Your task to perform on an android device: Open Chrome and go to settings Image 0: 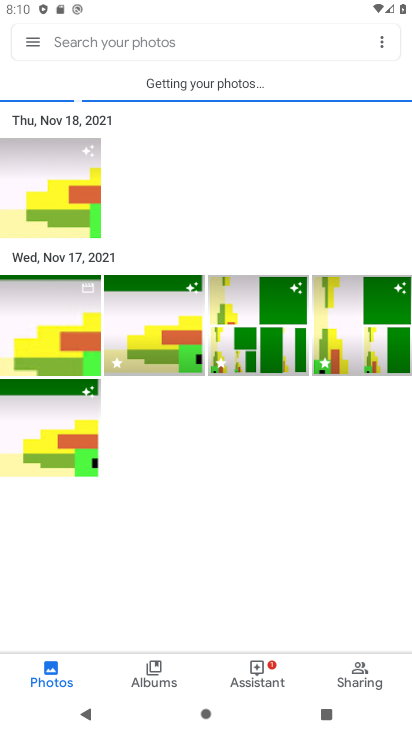
Step 0: press home button
Your task to perform on an android device: Open Chrome and go to settings Image 1: 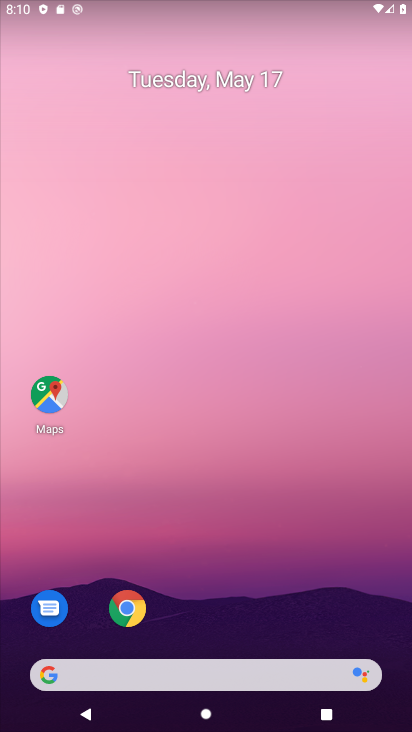
Step 1: drag from (353, 619) to (362, 204)
Your task to perform on an android device: Open Chrome and go to settings Image 2: 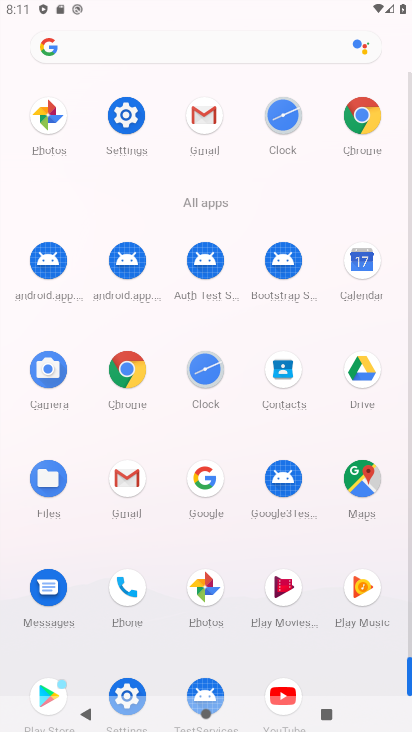
Step 2: click (364, 135)
Your task to perform on an android device: Open Chrome and go to settings Image 3: 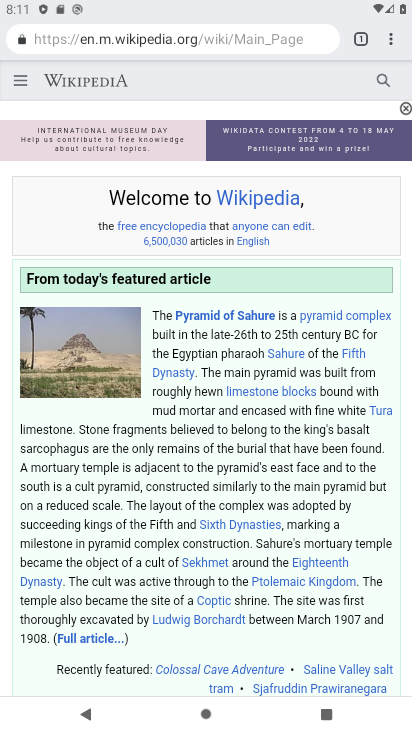
Step 3: click (384, 43)
Your task to perform on an android device: Open Chrome and go to settings Image 4: 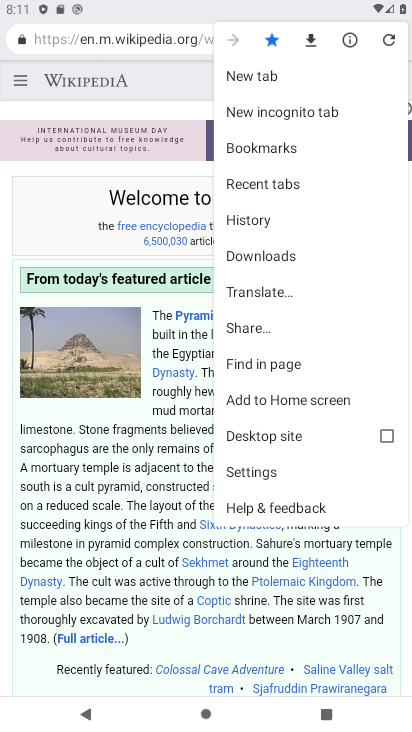
Step 4: click (277, 476)
Your task to perform on an android device: Open Chrome and go to settings Image 5: 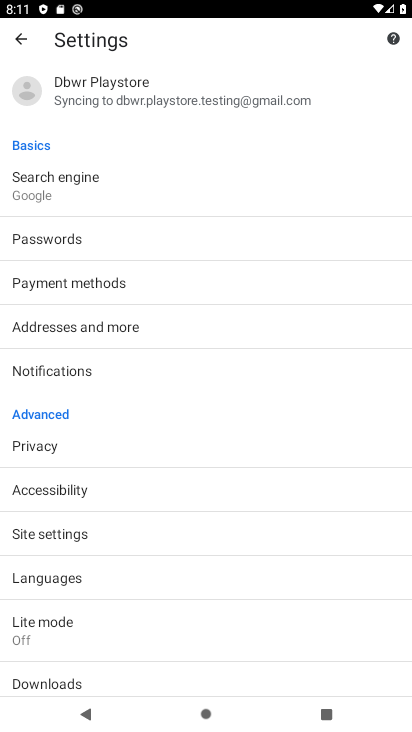
Step 5: task complete